Your task to perform on an android device: Open Yahoo.com Image 0: 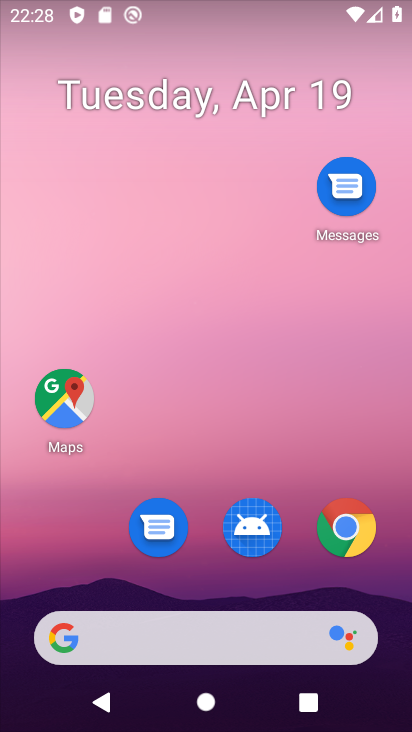
Step 0: click (317, 538)
Your task to perform on an android device: Open Yahoo.com Image 1: 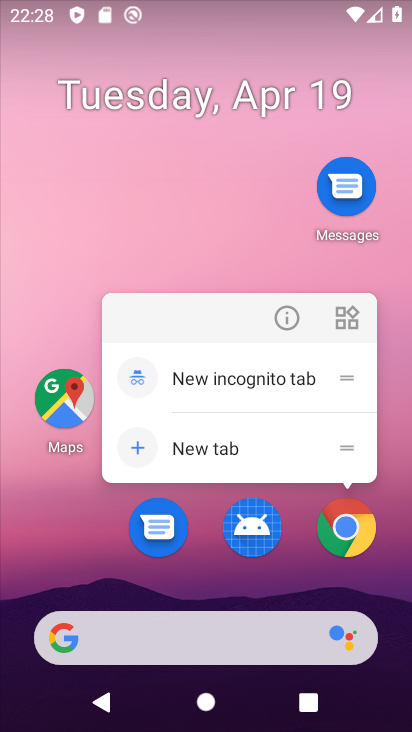
Step 1: click (338, 530)
Your task to perform on an android device: Open Yahoo.com Image 2: 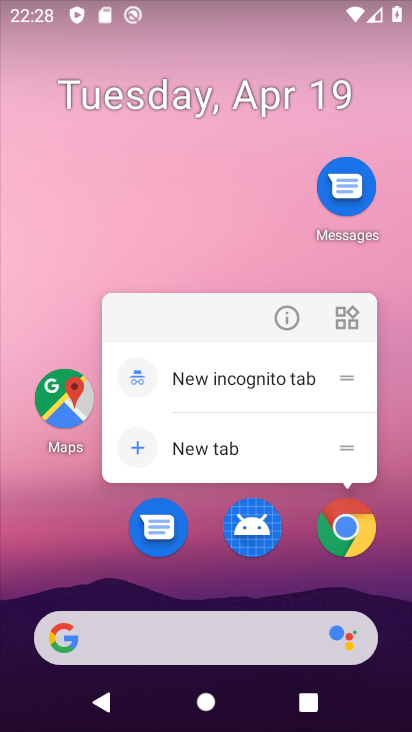
Step 2: click (350, 549)
Your task to perform on an android device: Open Yahoo.com Image 3: 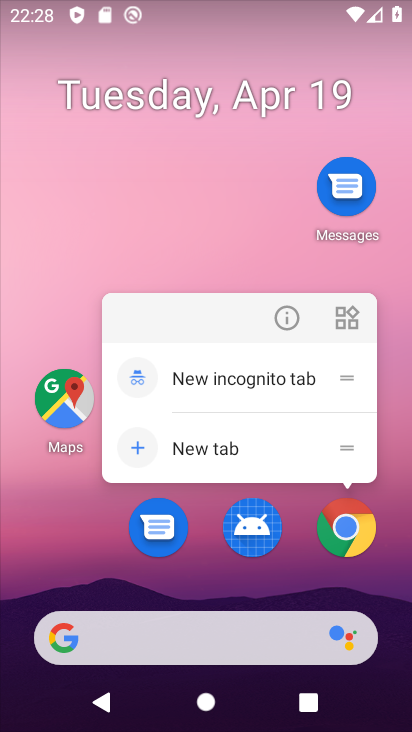
Step 3: click (344, 539)
Your task to perform on an android device: Open Yahoo.com Image 4: 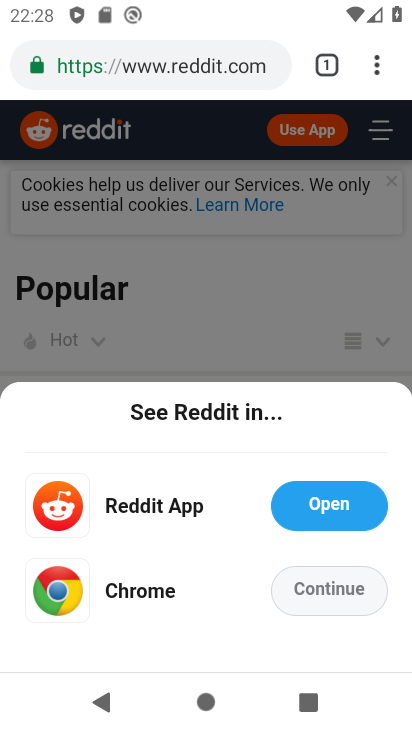
Step 4: click (190, 69)
Your task to perform on an android device: Open Yahoo.com Image 5: 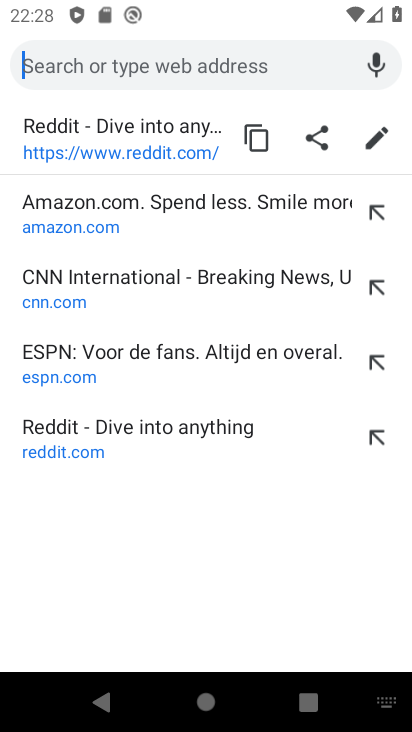
Step 5: type "yahoo.com"
Your task to perform on an android device: Open Yahoo.com Image 6: 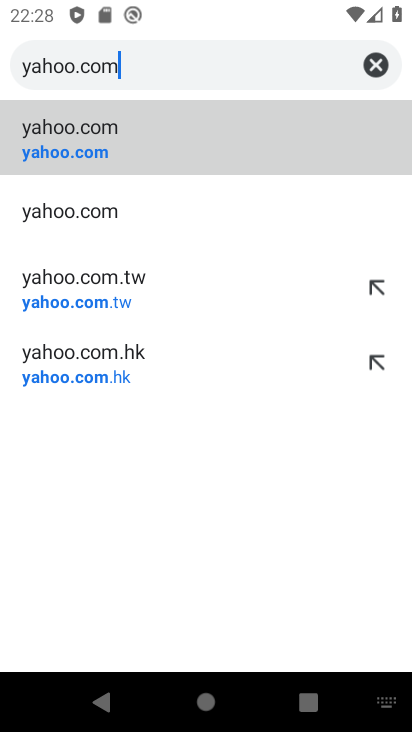
Step 6: click (32, 155)
Your task to perform on an android device: Open Yahoo.com Image 7: 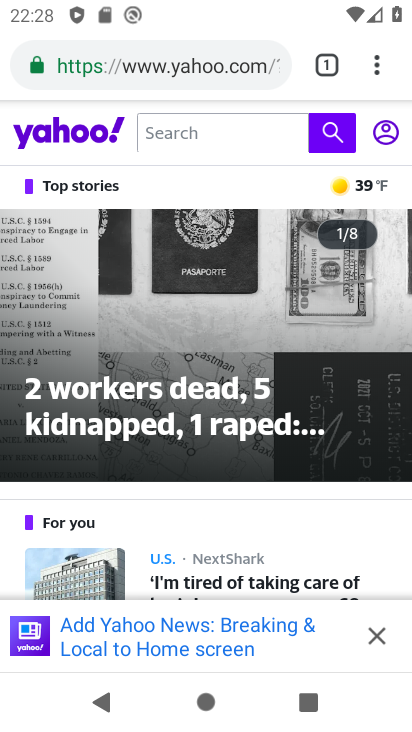
Step 7: task complete